Your task to perform on an android device: set default search engine in the chrome app Image 0: 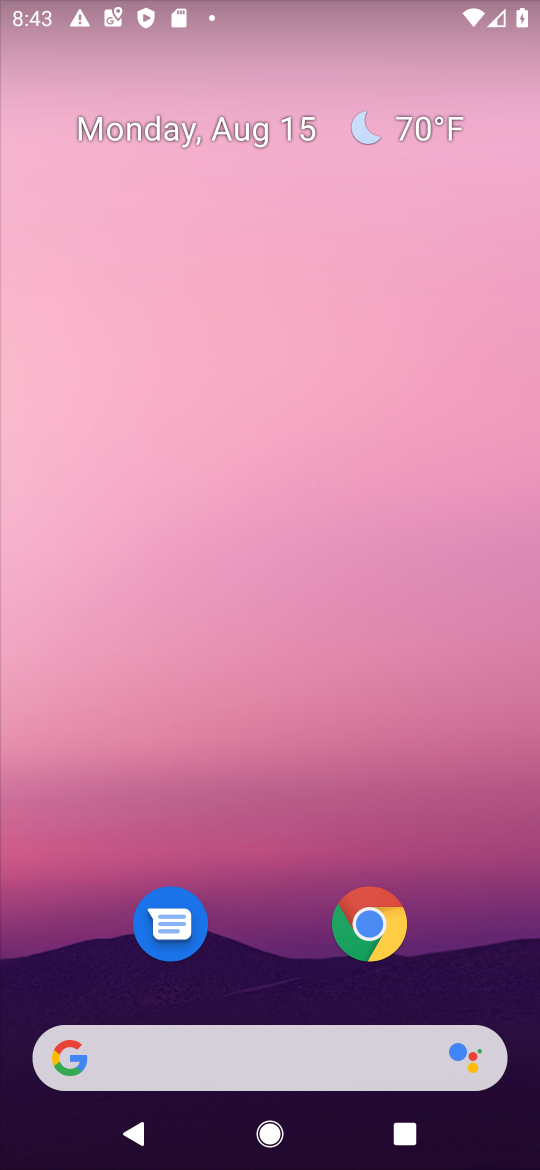
Step 0: click (372, 928)
Your task to perform on an android device: set default search engine in the chrome app Image 1: 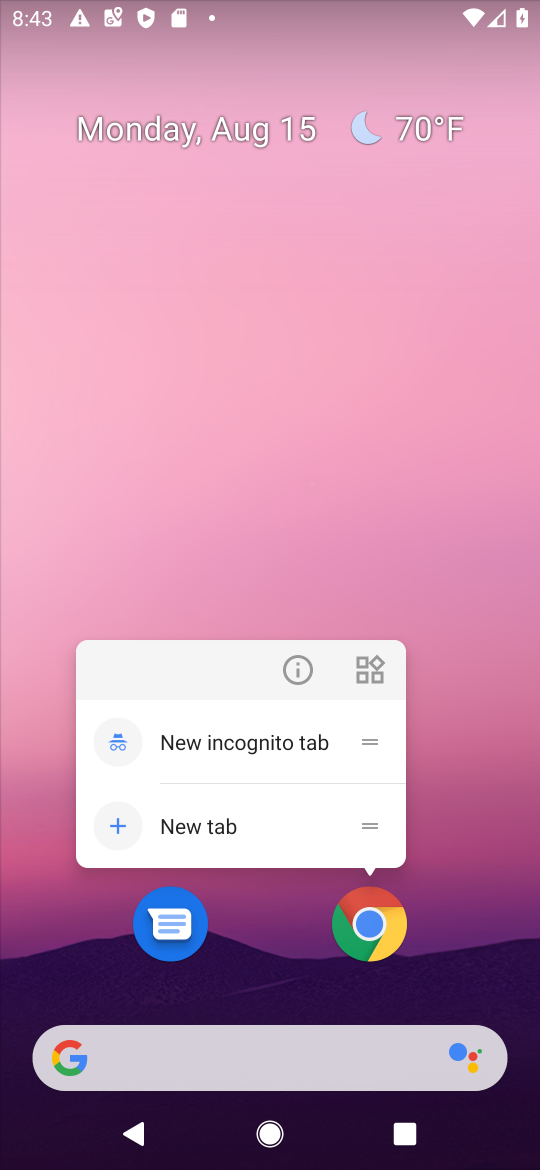
Step 1: click (375, 931)
Your task to perform on an android device: set default search engine in the chrome app Image 2: 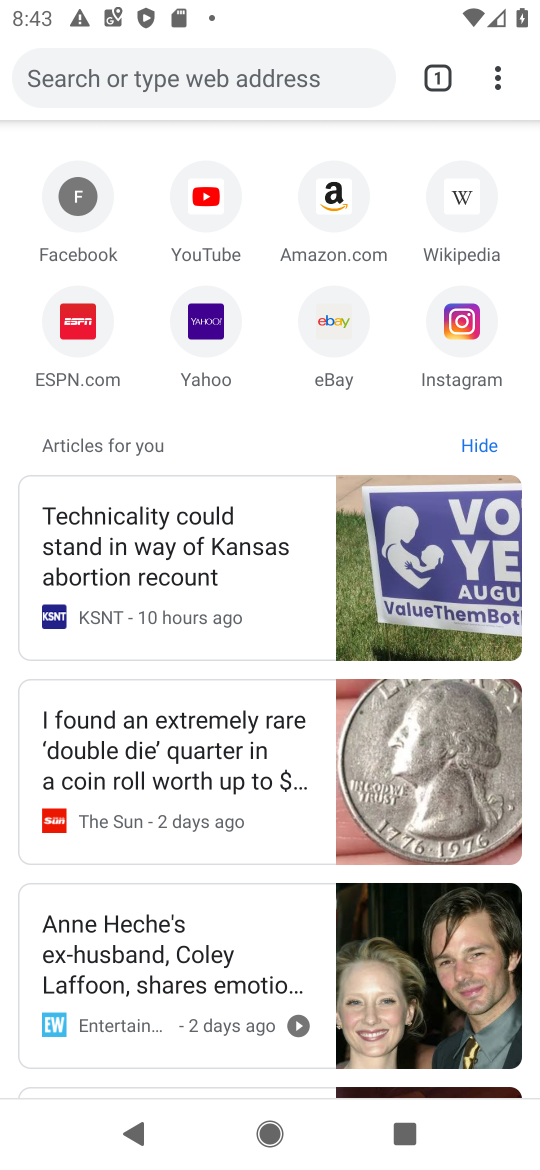
Step 2: click (495, 93)
Your task to perform on an android device: set default search engine in the chrome app Image 3: 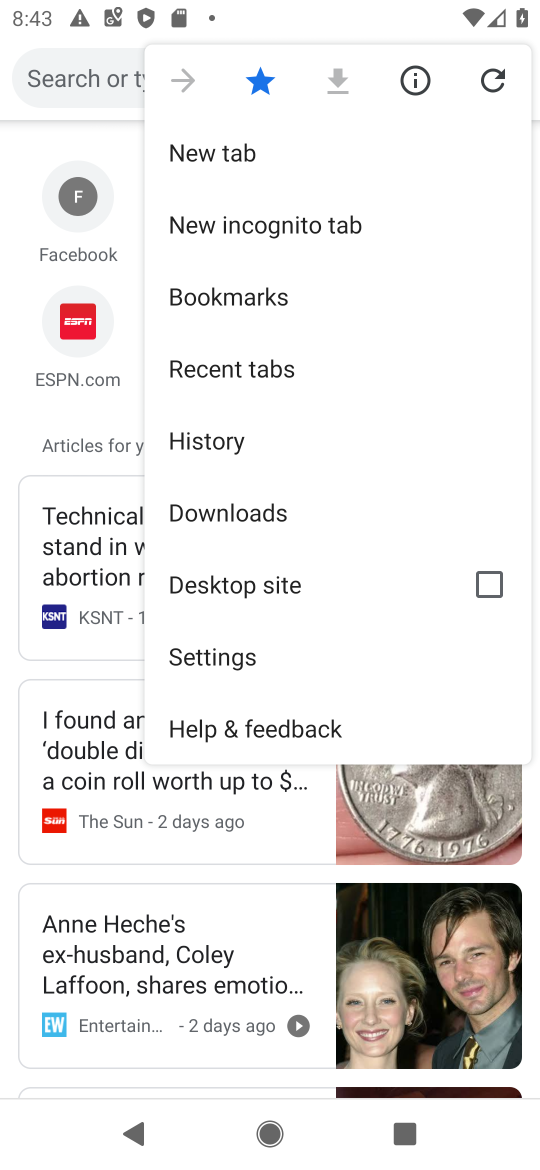
Step 3: click (212, 653)
Your task to perform on an android device: set default search engine in the chrome app Image 4: 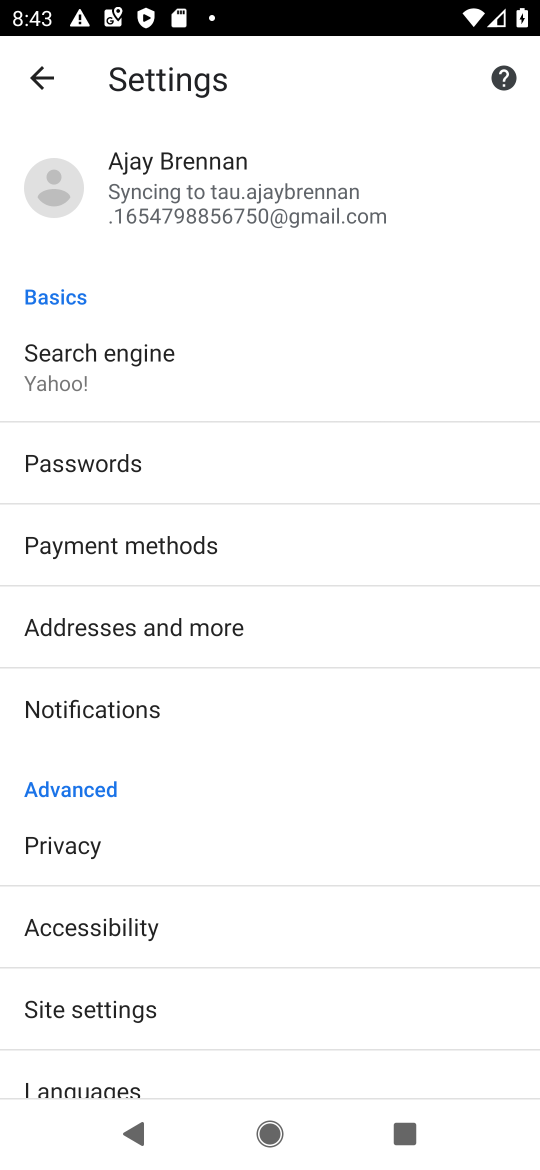
Step 4: click (62, 361)
Your task to perform on an android device: set default search engine in the chrome app Image 5: 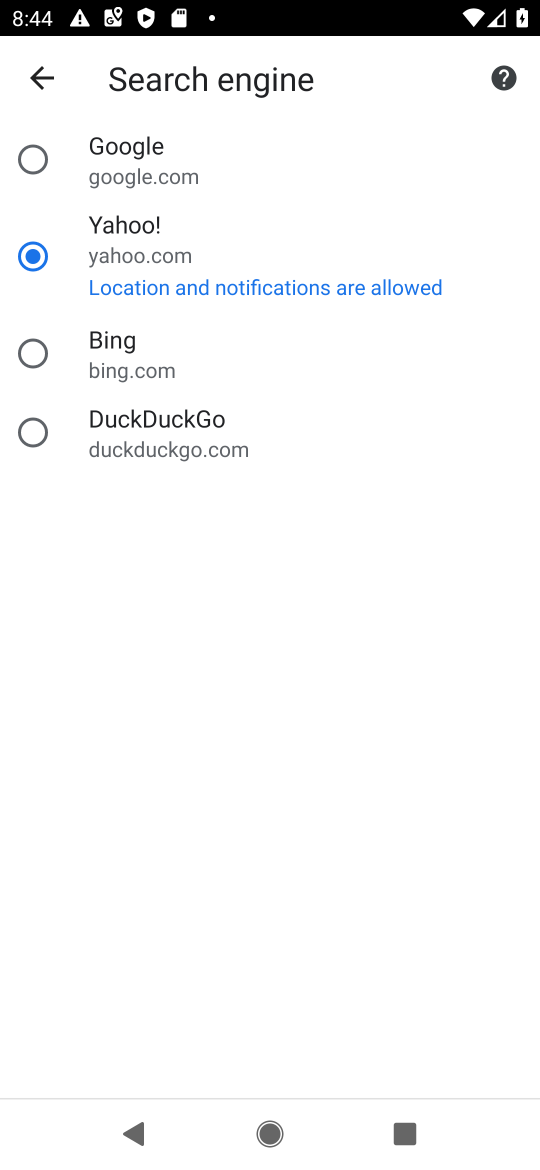
Step 5: click (32, 162)
Your task to perform on an android device: set default search engine in the chrome app Image 6: 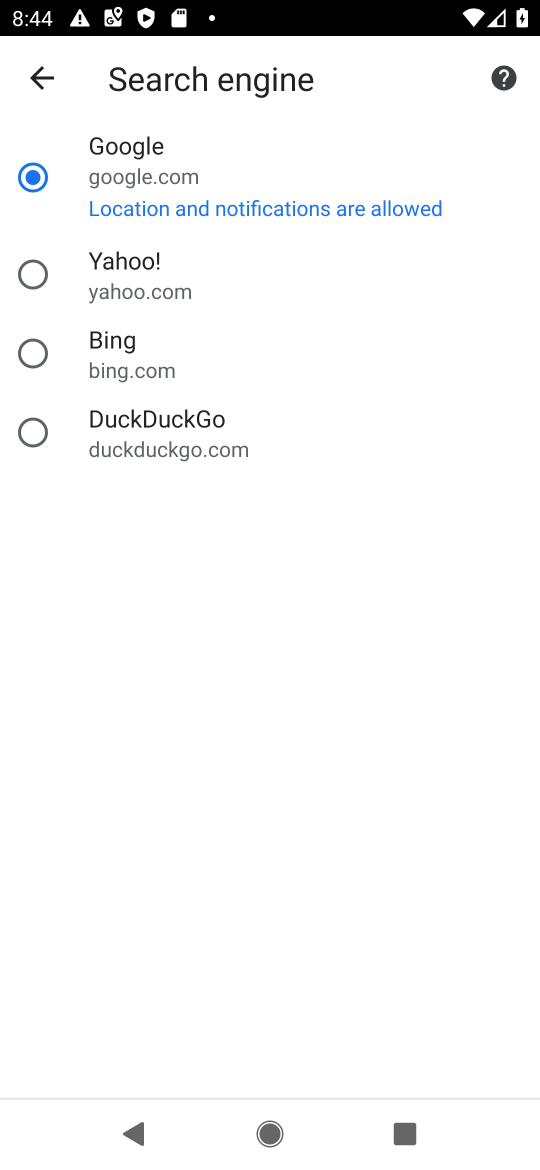
Step 6: task complete